Your task to perform on an android device: Go to accessibility settings Image 0: 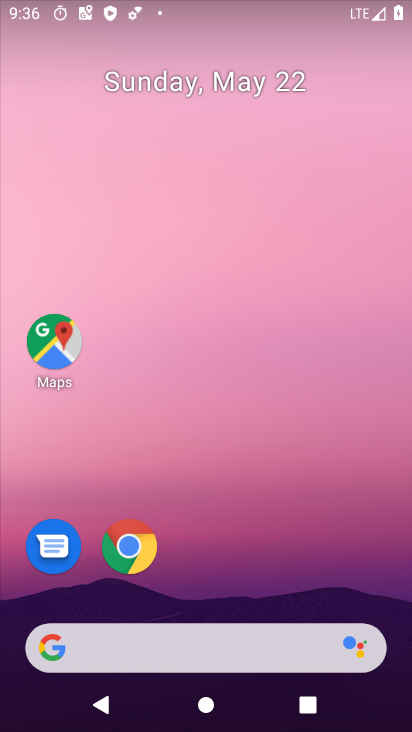
Step 0: click (251, 332)
Your task to perform on an android device: Go to accessibility settings Image 1: 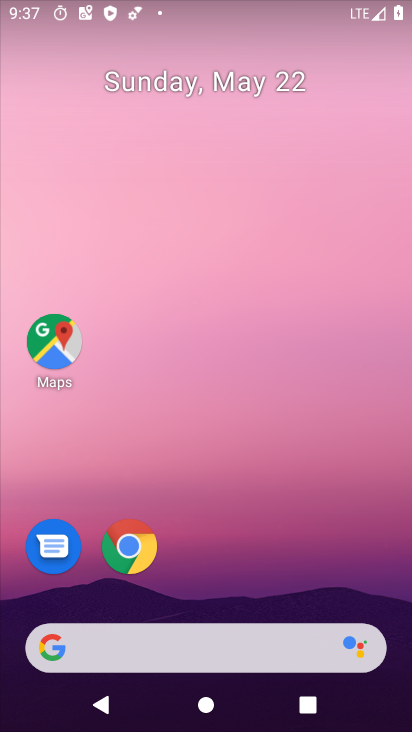
Step 1: drag from (196, 600) to (268, 82)
Your task to perform on an android device: Go to accessibility settings Image 2: 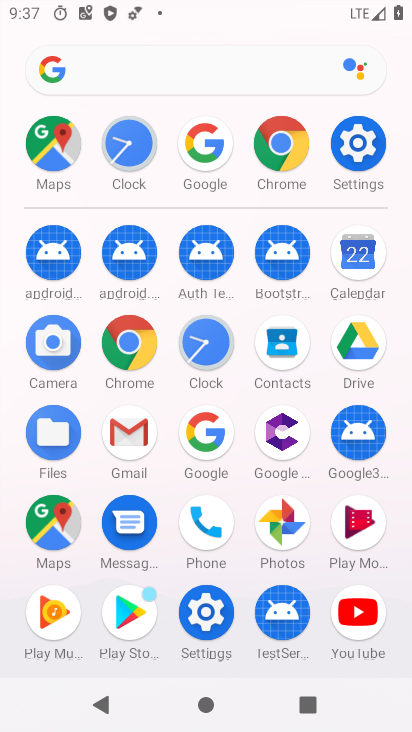
Step 2: click (366, 145)
Your task to perform on an android device: Go to accessibility settings Image 3: 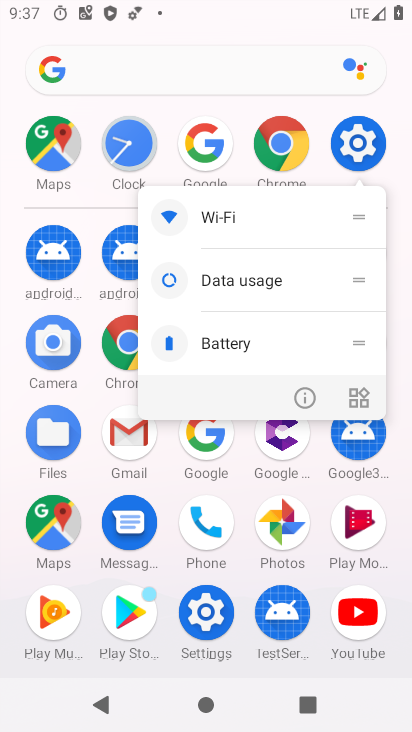
Step 3: click (303, 406)
Your task to perform on an android device: Go to accessibility settings Image 4: 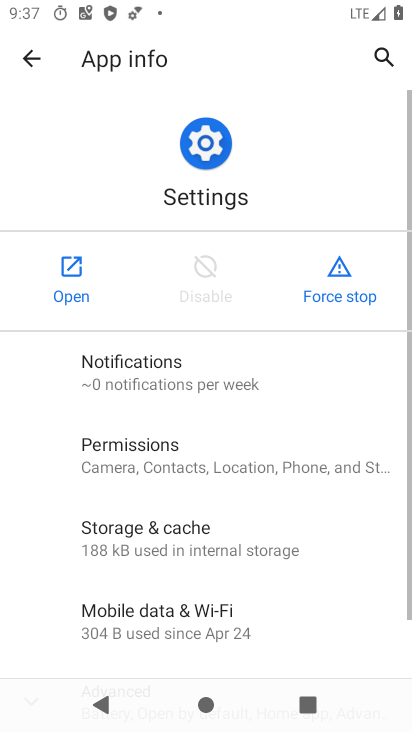
Step 4: click (63, 275)
Your task to perform on an android device: Go to accessibility settings Image 5: 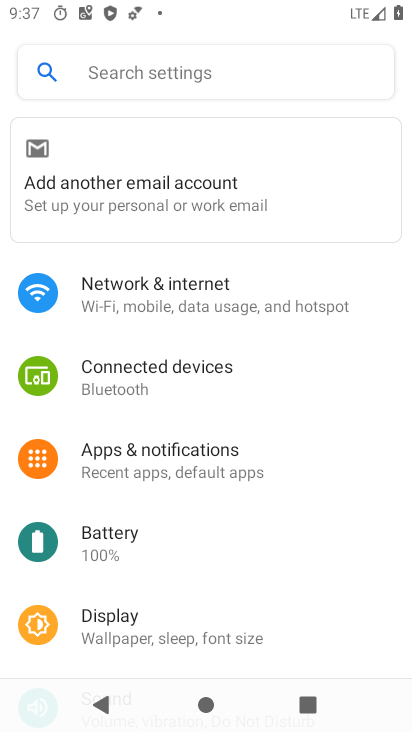
Step 5: drag from (244, 596) to (354, 5)
Your task to perform on an android device: Go to accessibility settings Image 6: 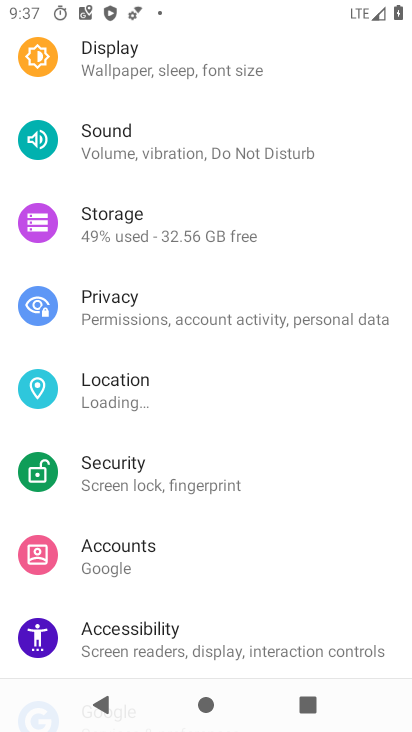
Step 6: drag from (179, 591) to (286, 164)
Your task to perform on an android device: Go to accessibility settings Image 7: 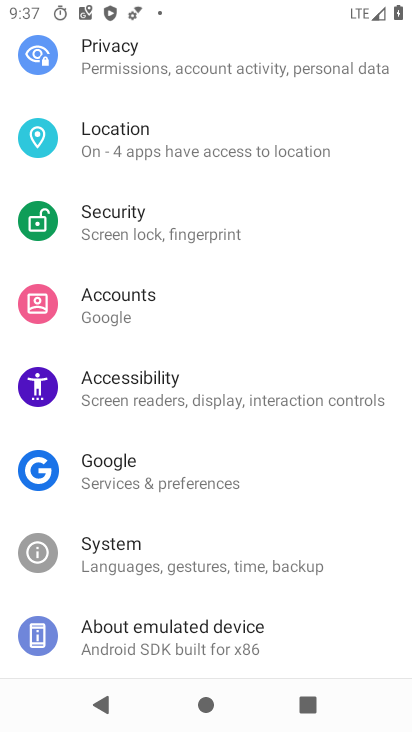
Step 7: click (166, 381)
Your task to perform on an android device: Go to accessibility settings Image 8: 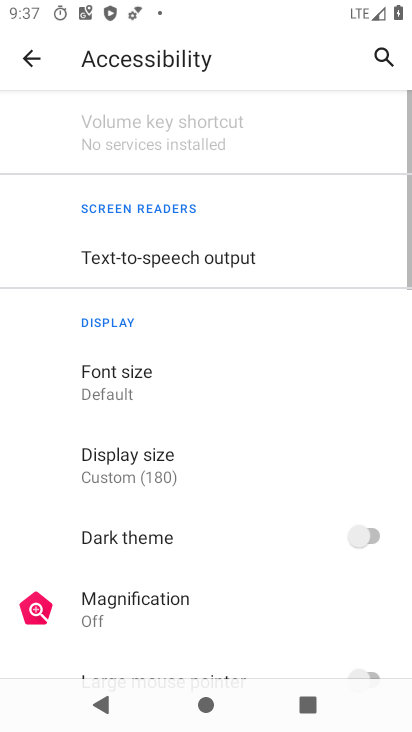
Step 8: task complete